Your task to perform on an android device: turn pop-ups on in chrome Image 0: 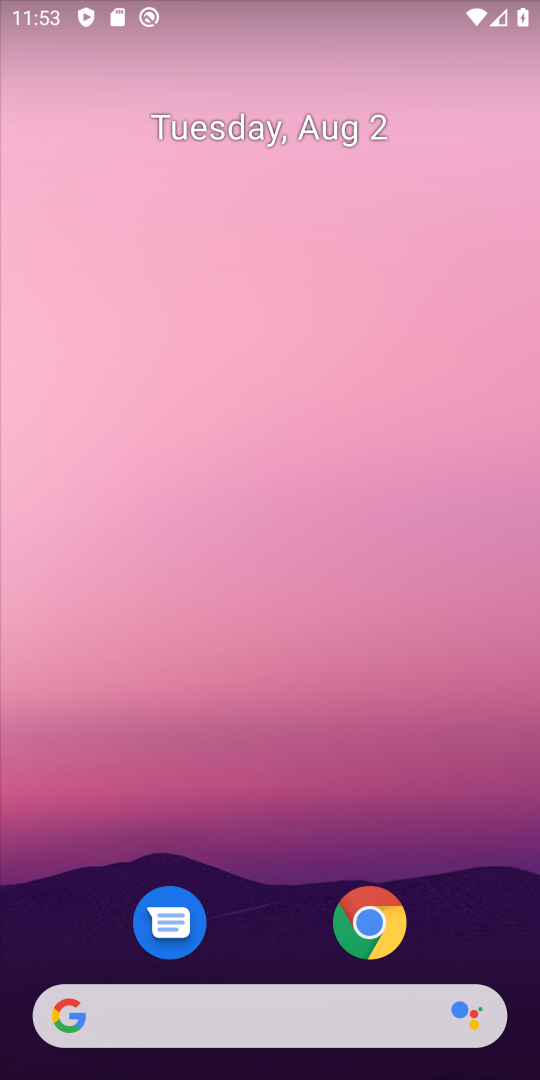
Step 0: click (389, 915)
Your task to perform on an android device: turn pop-ups on in chrome Image 1: 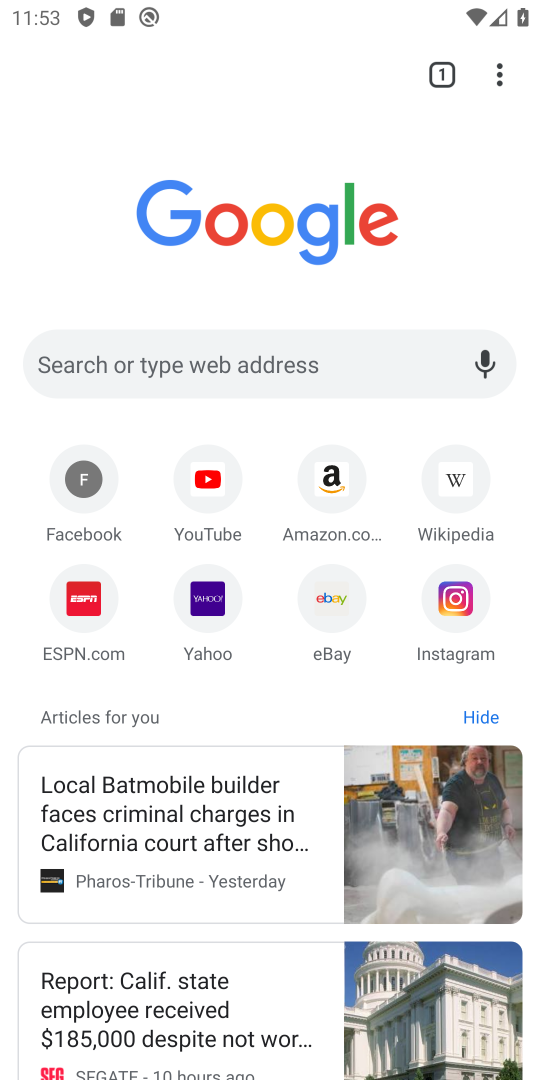
Step 1: click (489, 79)
Your task to perform on an android device: turn pop-ups on in chrome Image 2: 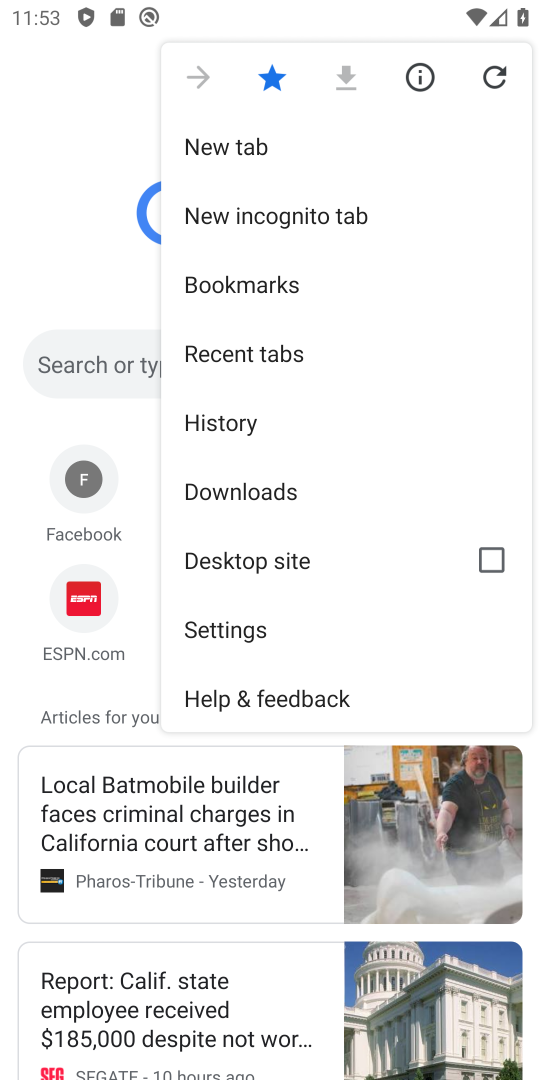
Step 2: click (322, 641)
Your task to perform on an android device: turn pop-ups on in chrome Image 3: 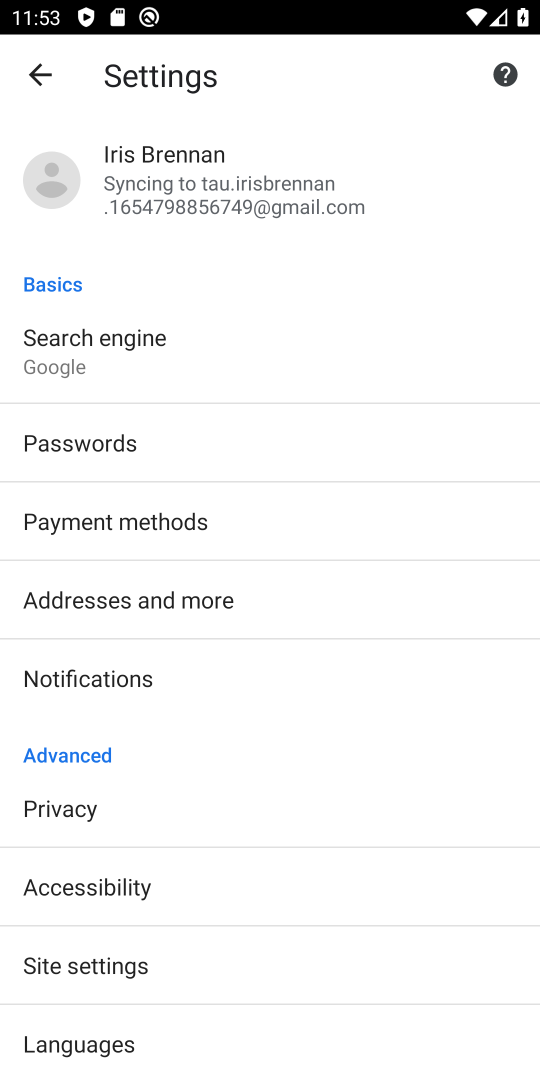
Step 3: click (278, 975)
Your task to perform on an android device: turn pop-ups on in chrome Image 4: 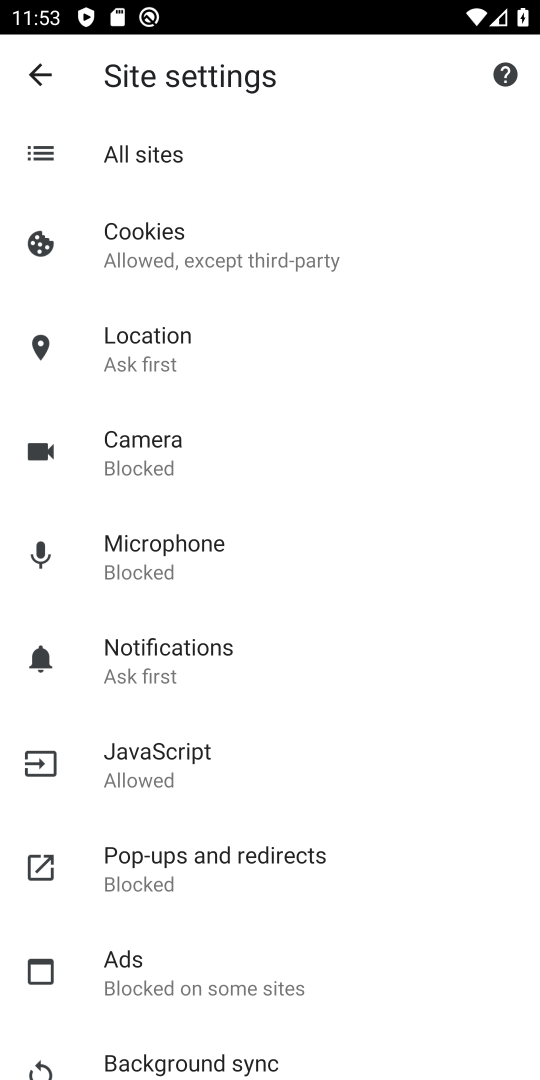
Step 4: click (270, 882)
Your task to perform on an android device: turn pop-ups on in chrome Image 5: 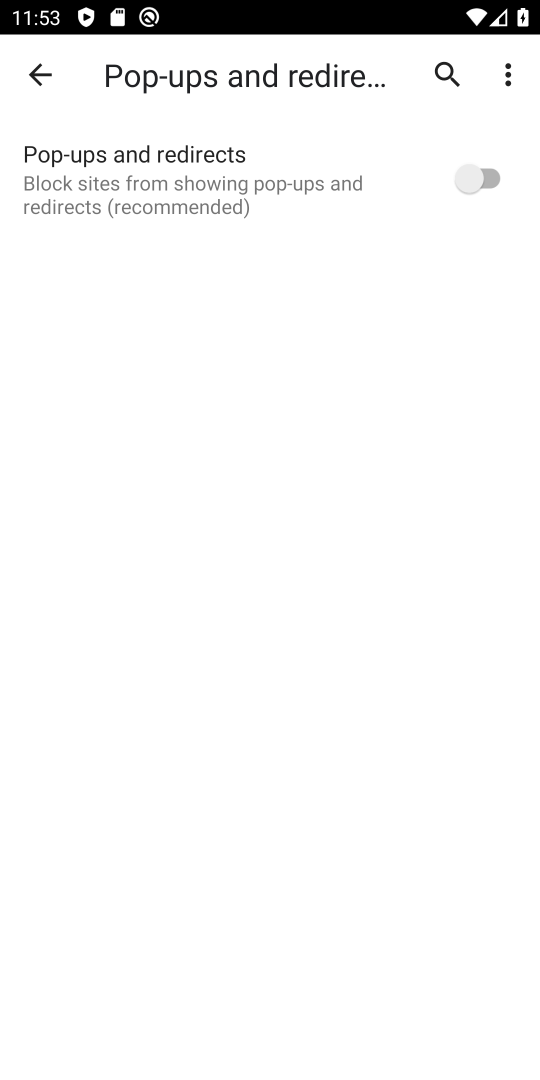
Step 5: click (470, 190)
Your task to perform on an android device: turn pop-ups on in chrome Image 6: 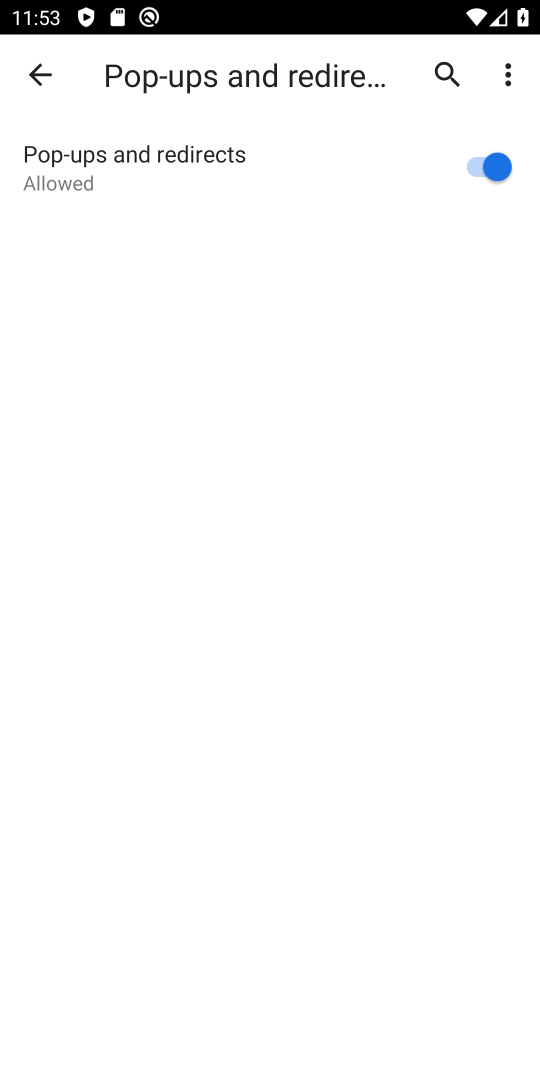
Step 6: task complete